Your task to perform on an android device: turn pop-ups on in chrome Image 0: 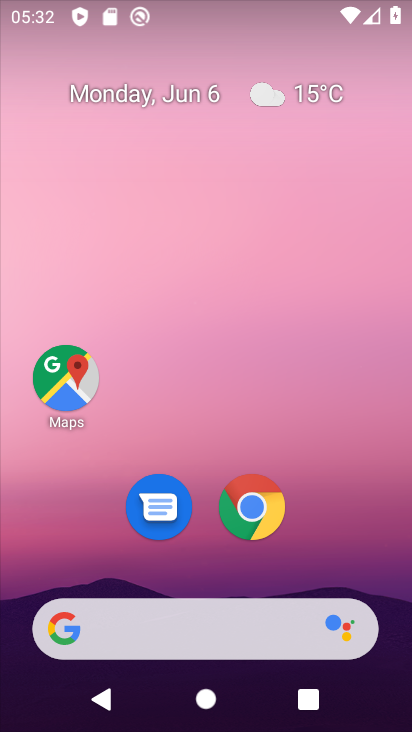
Step 0: click (244, 511)
Your task to perform on an android device: turn pop-ups on in chrome Image 1: 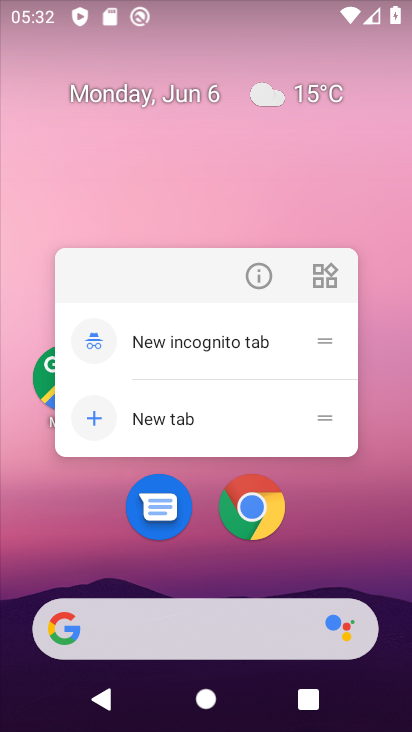
Step 1: click (244, 511)
Your task to perform on an android device: turn pop-ups on in chrome Image 2: 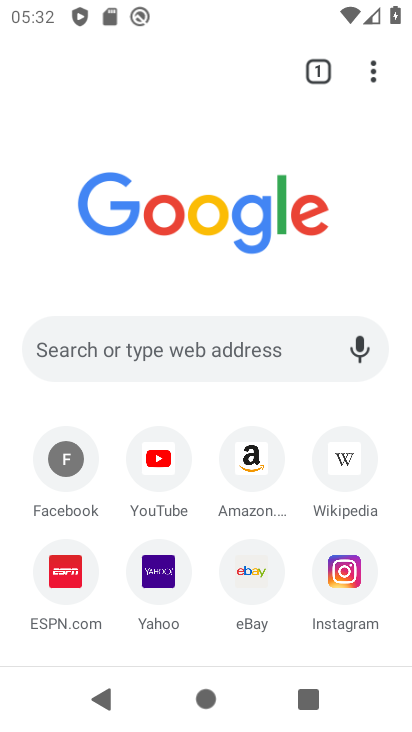
Step 2: click (373, 80)
Your task to perform on an android device: turn pop-ups on in chrome Image 3: 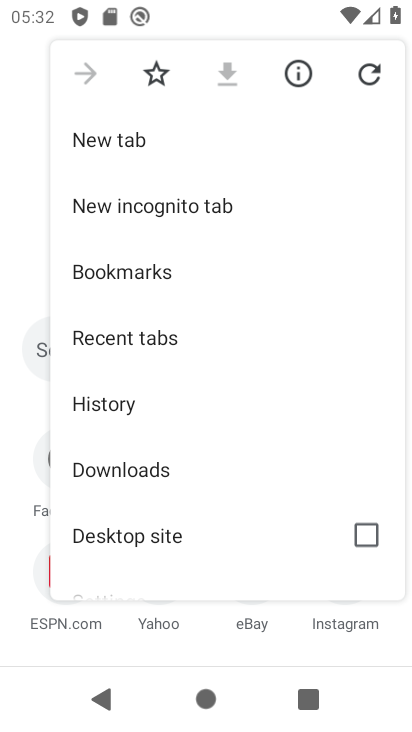
Step 3: drag from (151, 517) to (83, 21)
Your task to perform on an android device: turn pop-ups on in chrome Image 4: 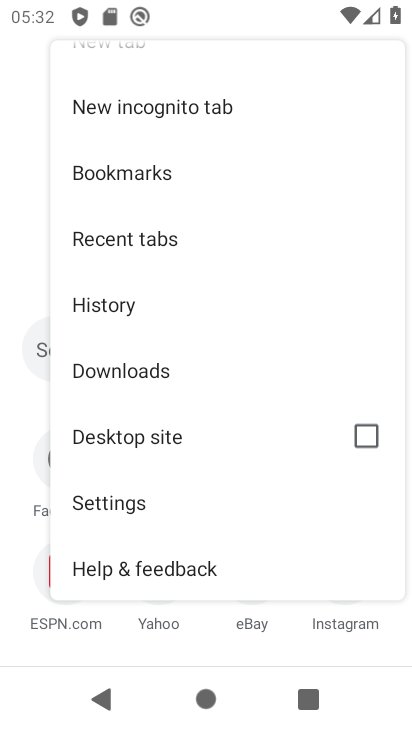
Step 4: click (126, 504)
Your task to perform on an android device: turn pop-ups on in chrome Image 5: 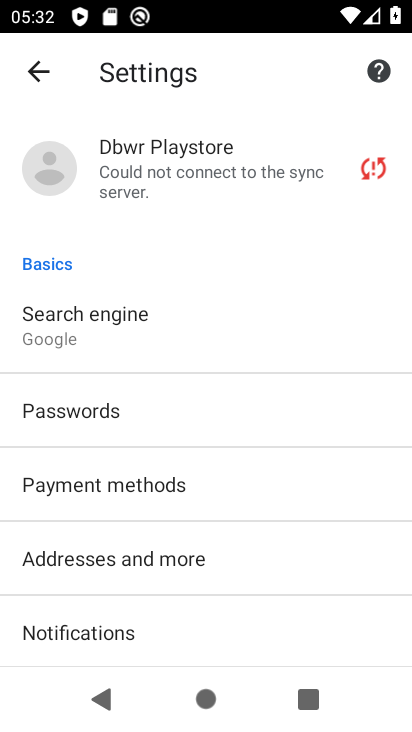
Step 5: drag from (178, 585) to (118, 0)
Your task to perform on an android device: turn pop-ups on in chrome Image 6: 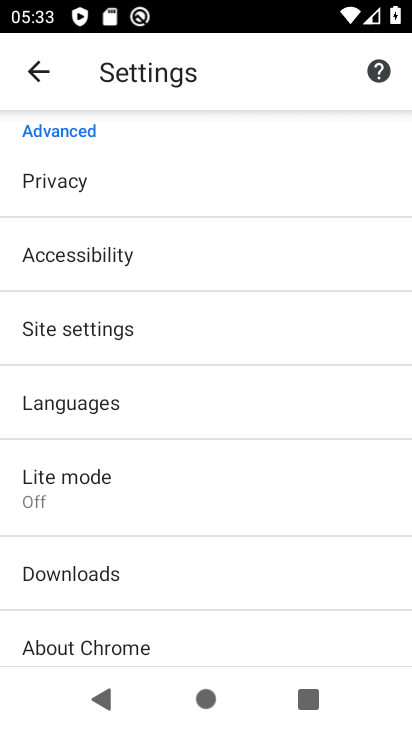
Step 6: click (84, 337)
Your task to perform on an android device: turn pop-ups on in chrome Image 7: 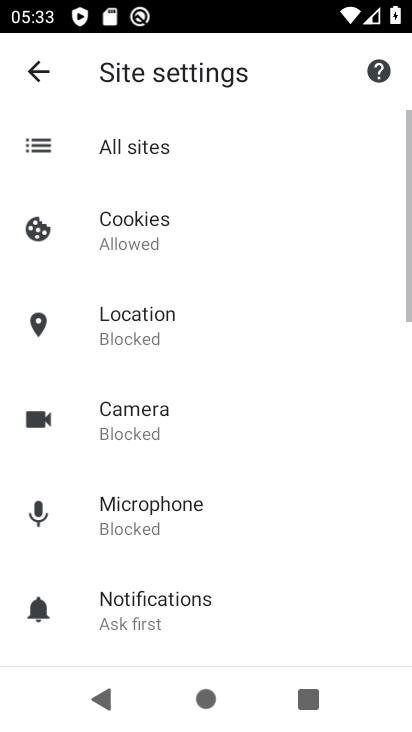
Step 7: drag from (158, 572) to (173, 173)
Your task to perform on an android device: turn pop-ups on in chrome Image 8: 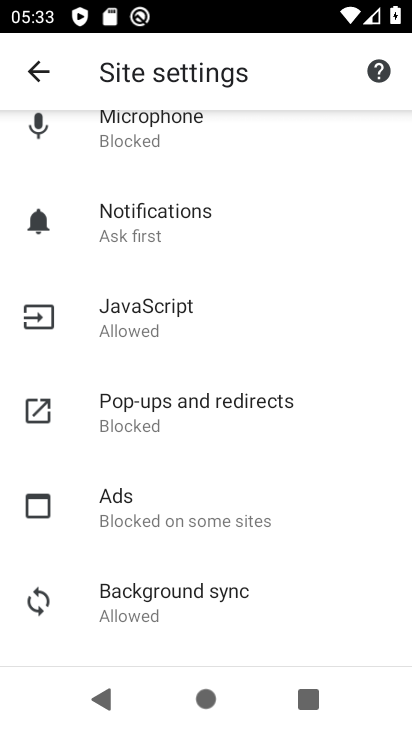
Step 8: click (148, 437)
Your task to perform on an android device: turn pop-ups on in chrome Image 9: 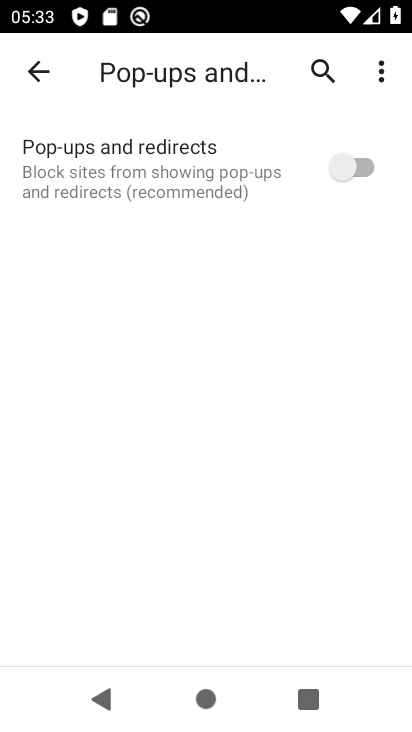
Step 9: click (362, 157)
Your task to perform on an android device: turn pop-ups on in chrome Image 10: 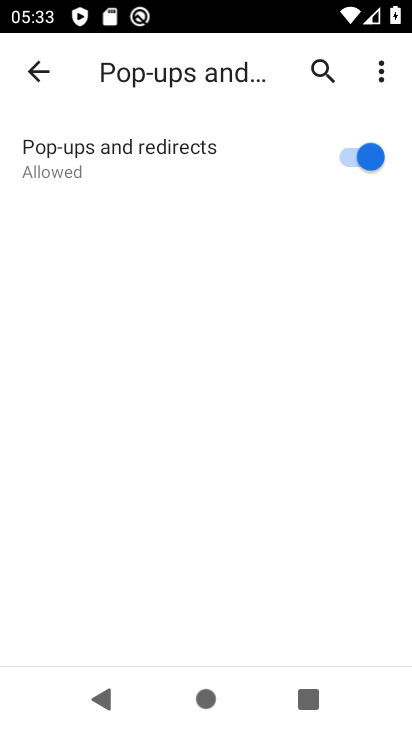
Step 10: task complete